Your task to perform on an android device: set the stopwatch Image 0: 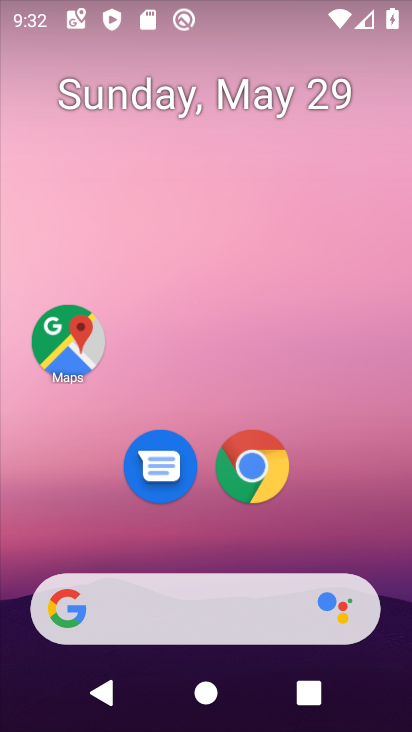
Step 0: drag from (201, 556) to (198, 129)
Your task to perform on an android device: set the stopwatch Image 1: 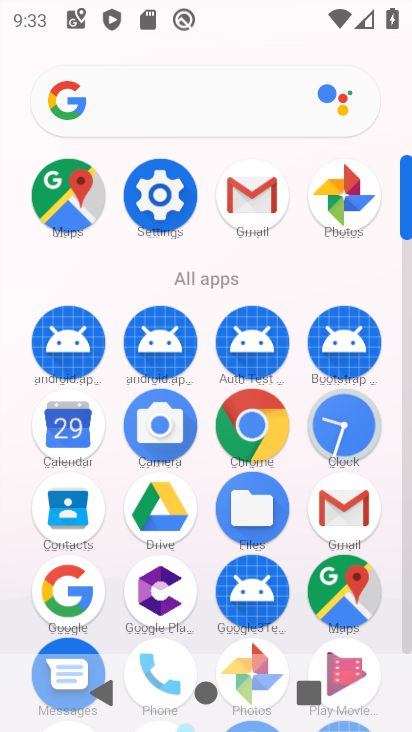
Step 1: click (348, 397)
Your task to perform on an android device: set the stopwatch Image 2: 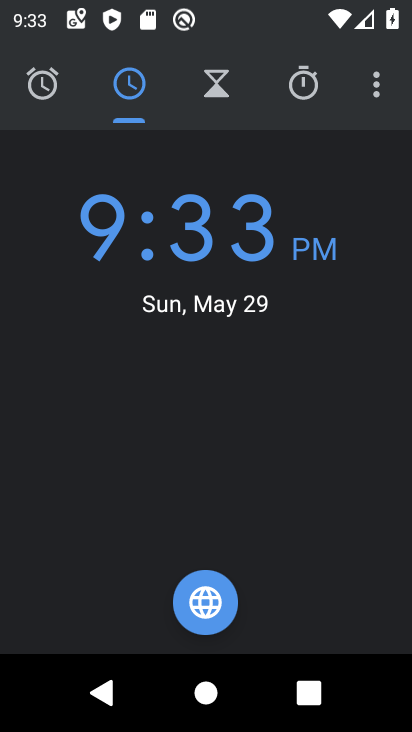
Step 2: click (297, 98)
Your task to perform on an android device: set the stopwatch Image 3: 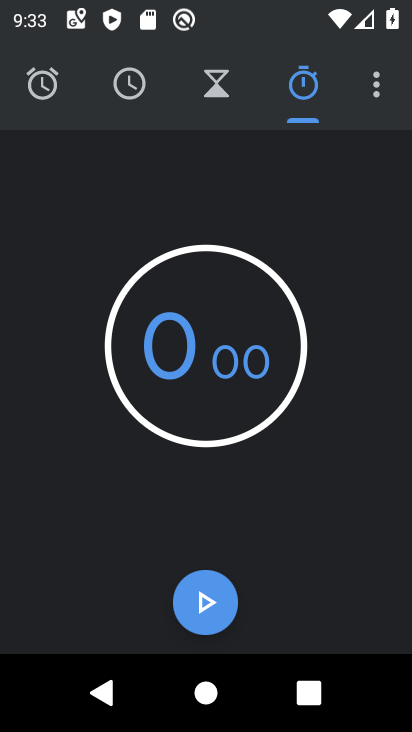
Step 3: click (204, 596)
Your task to perform on an android device: set the stopwatch Image 4: 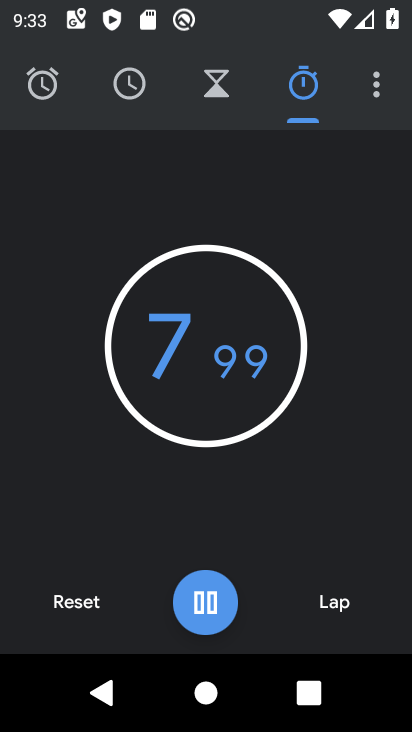
Step 4: task complete